Your task to perform on an android device: turn pop-ups off in chrome Image 0: 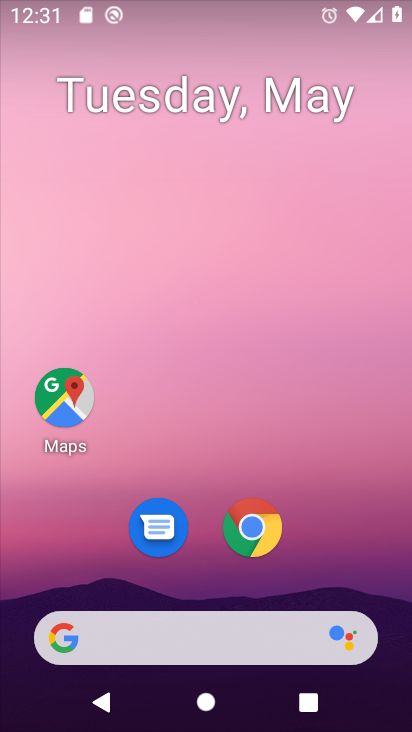
Step 0: click (272, 526)
Your task to perform on an android device: turn pop-ups off in chrome Image 1: 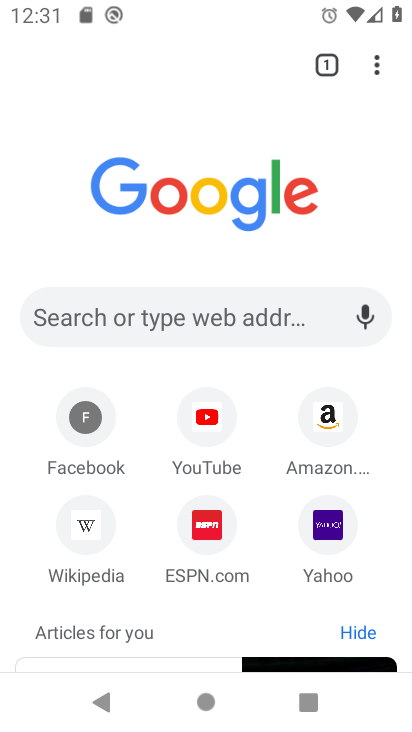
Step 1: click (382, 57)
Your task to perform on an android device: turn pop-ups off in chrome Image 2: 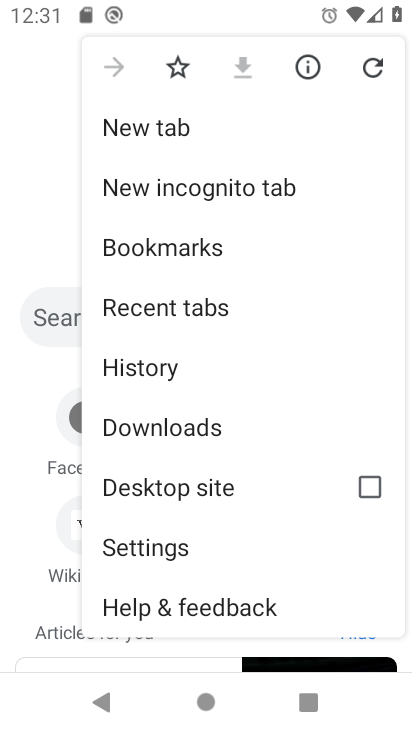
Step 2: click (150, 557)
Your task to perform on an android device: turn pop-ups off in chrome Image 3: 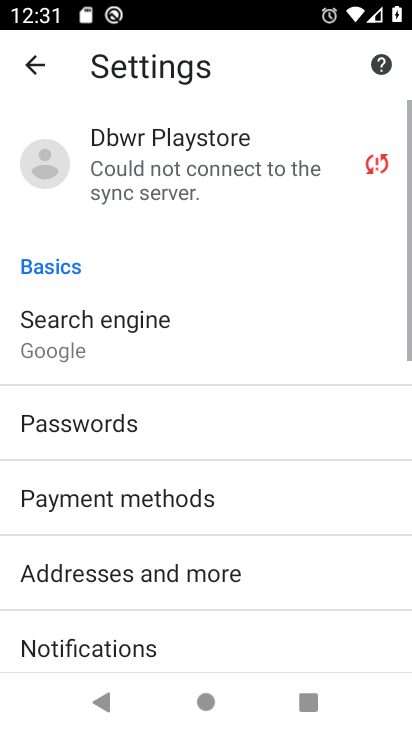
Step 3: drag from (181, 589) to (114, 155)
Your task to perform on an android device: turn pop-ups off in chrome Image 4: 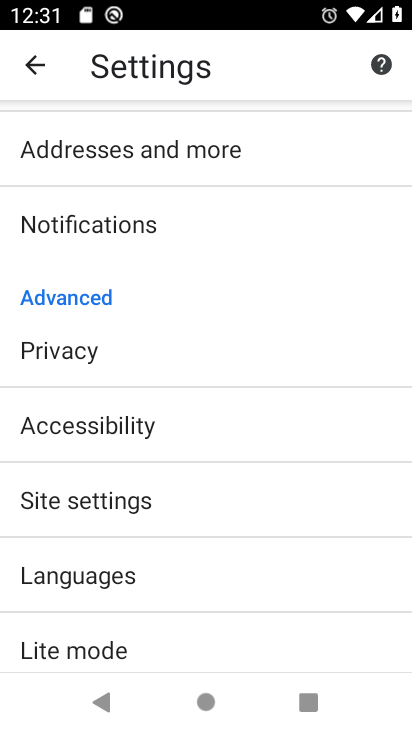
Step 4: click (109, 501)
Your task to perform on an android device: turn pop-ups off in chrome Image 5: 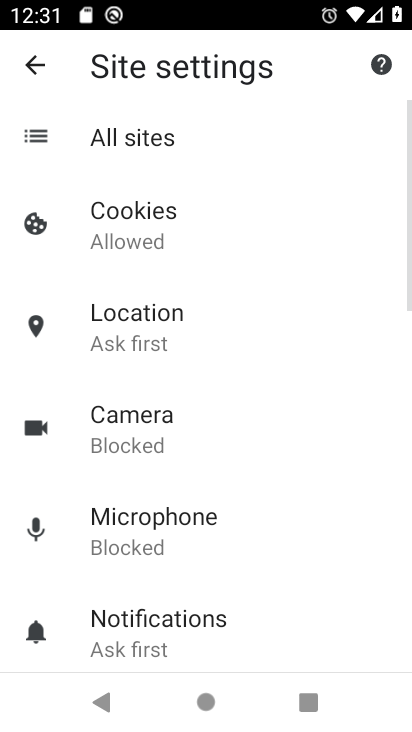
Step 5: drag from (241, 635) to (225, 167)
Your task to perform on an android device: turn pop-ups off in chrome Image 6: 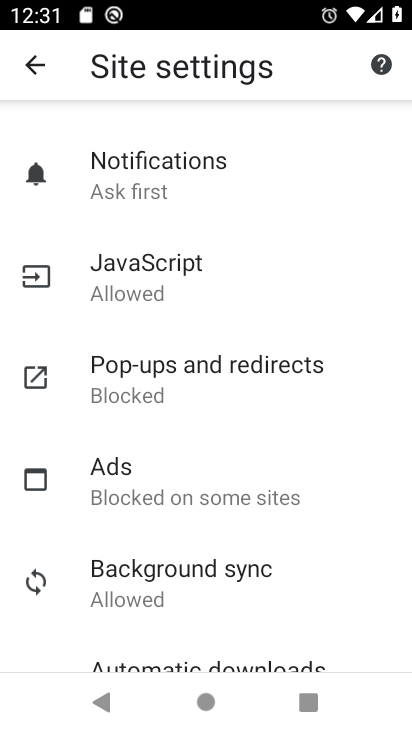
Step 6: click (215, 380)
Your task to perform on an android device: turn pop-ups off in chrome Image 7: 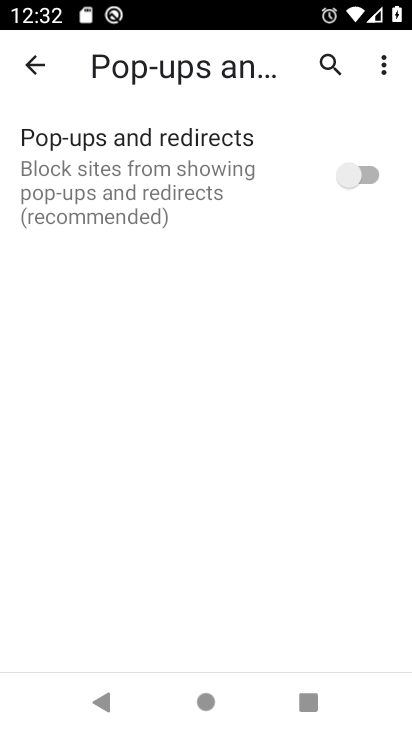
Step 7: task complete